Your task to perform on an android device: Go to location settings Image 0: 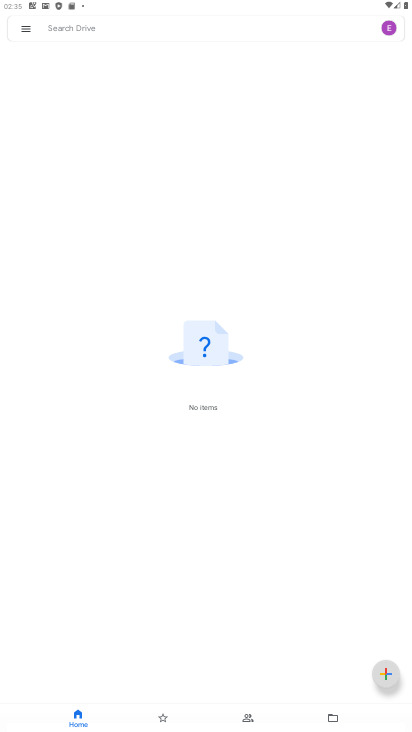
Step 0: press home button
Your task to perform on an android device: Go to location settings Image 1: 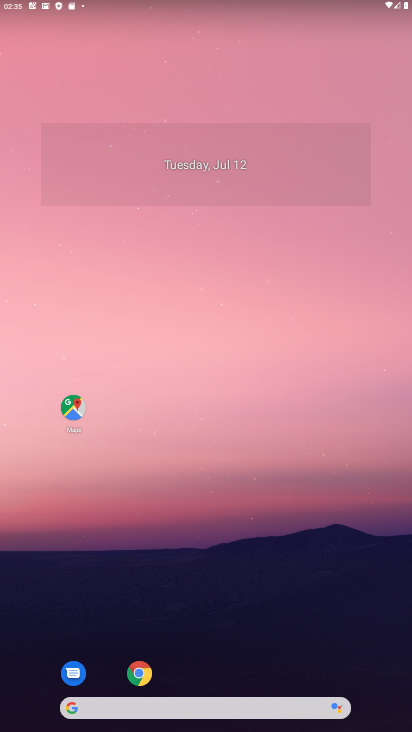
Step 1: drag from (253, 574) to (277, 65)
Your task to perform on an android device: Go to location settings Image 2: 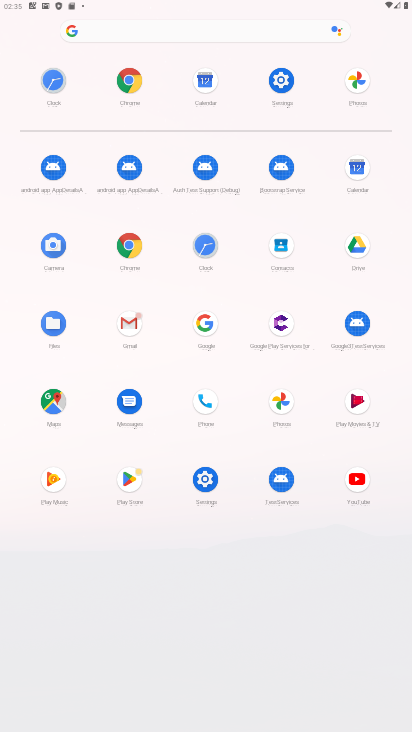
Step 2: click (281, 80)
Your task to perform on an android device: Go to location settings Image 3: 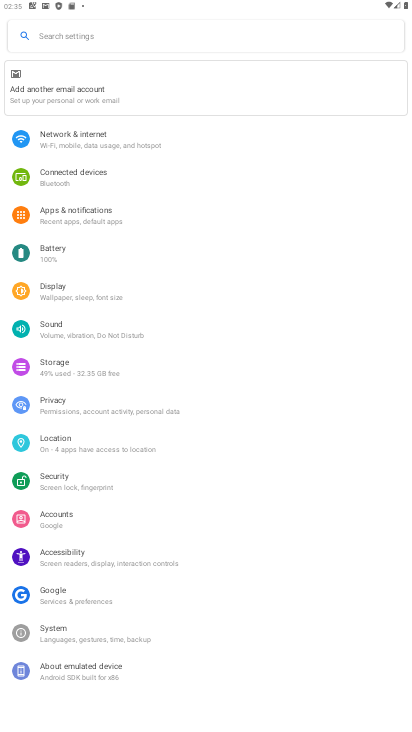
Step 3: click (72, 446)
Your task to perform on an android device: Go to location settings Image 4: 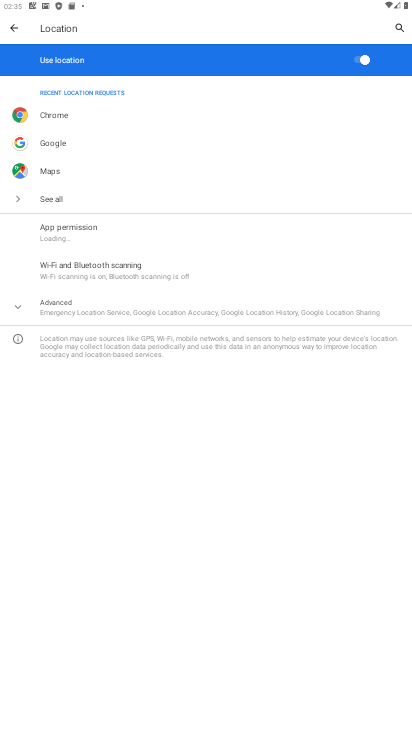
Step 4: task complete